Your task to perform on an android device: set the timer Image 0: 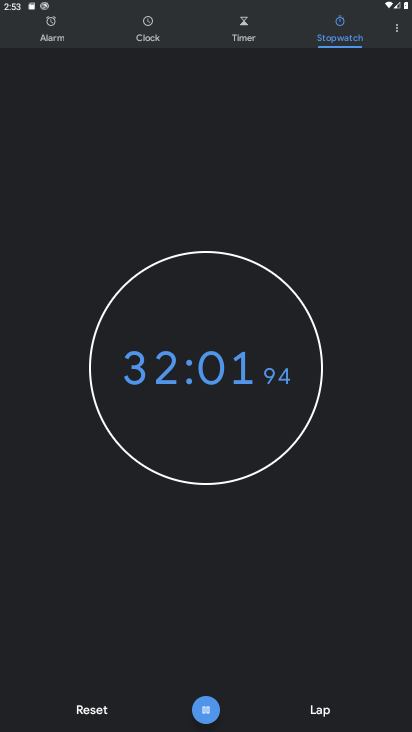
Step 0: click (234, 33)
Your task to perform on an android device: set the timer Image 1: 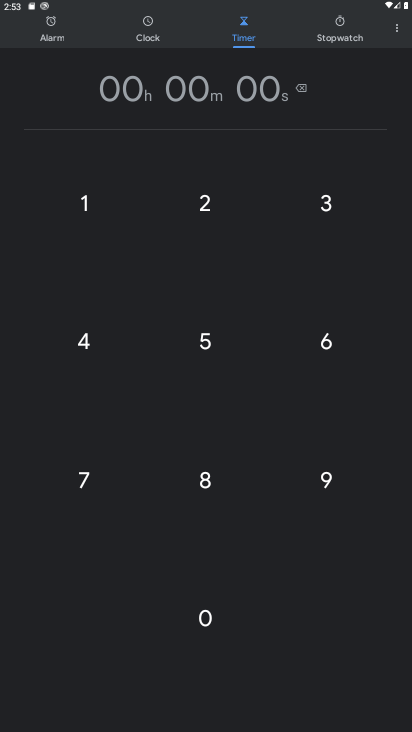
Step 1: click (92, 483)
Your task to perform on an android device: set the timer Image 2: 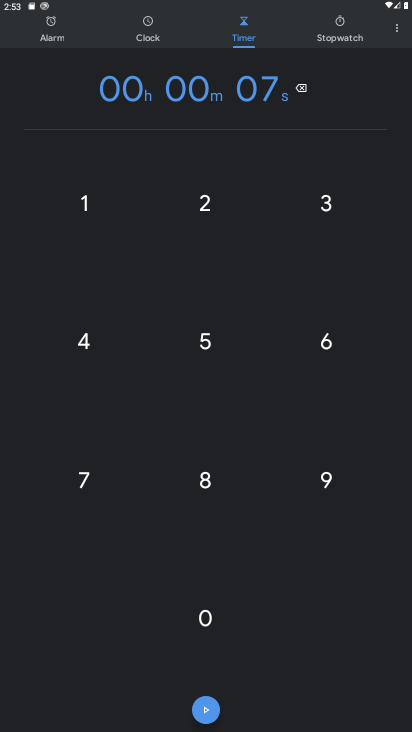
Step 2: click (210, 341)
Your task to perform on an android device: set the timer Image 3: 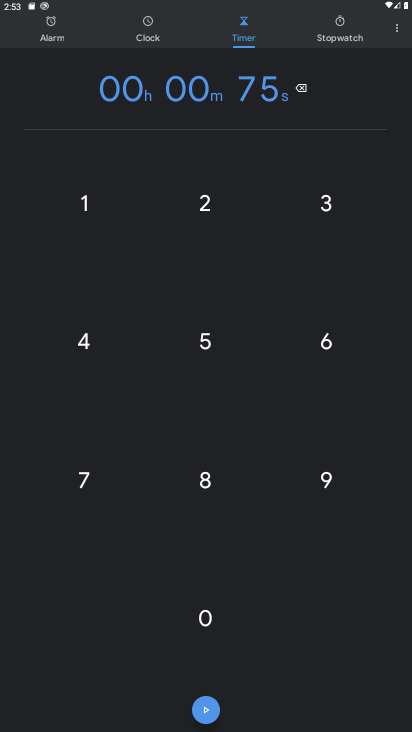
Step 3: click (339, 479)
Your task to perform on an android device: set the timer Image 4: 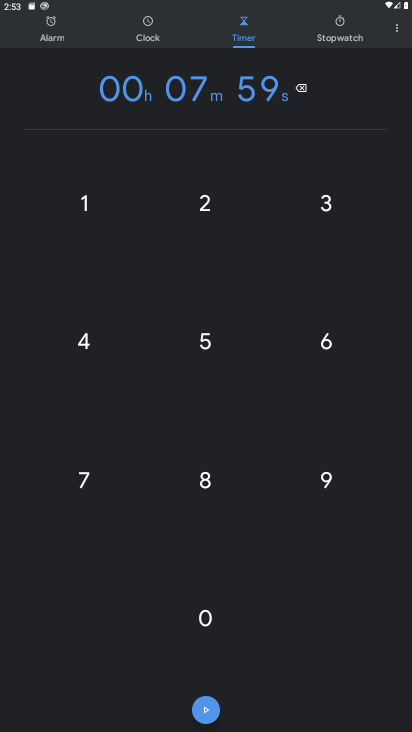
Step 4: click (204, 705)
Your task to perform on an android device: set the timer Image 5: 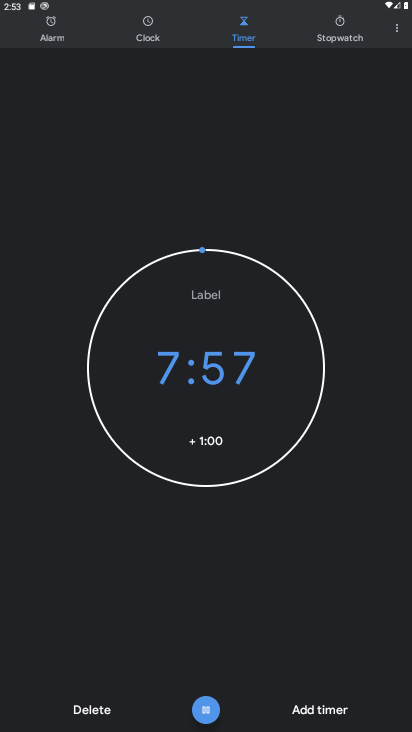
Step 5: click (199, 708)
Your task to perform on an android device: set the timer Image 6: 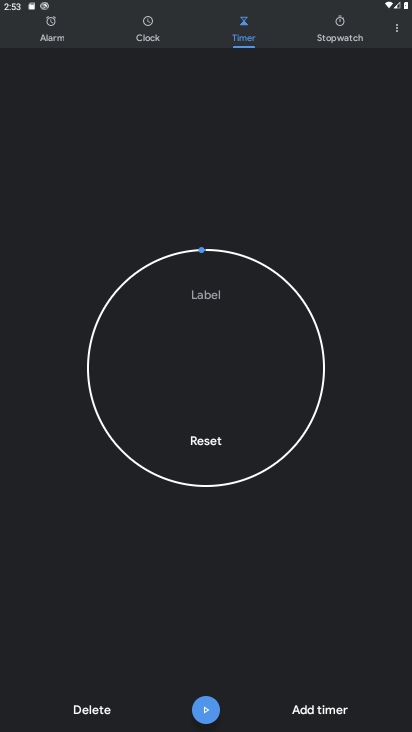
Step 6: click (203, 715)
Your task to perform on an android device: set the timer Image 7: 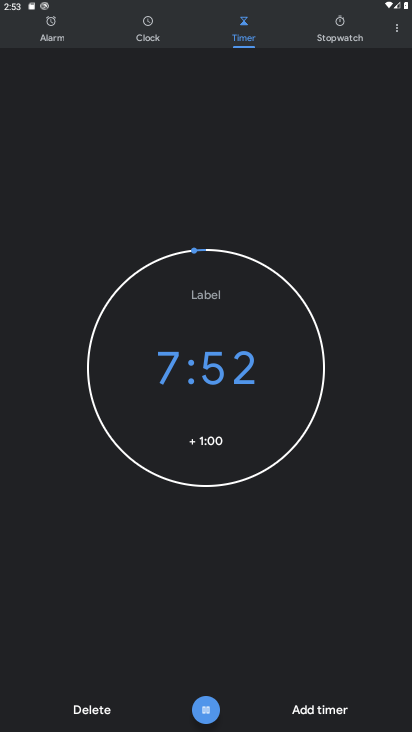
Step 7: task complete